Your task to perform on an android device: change the clock style Image 0: 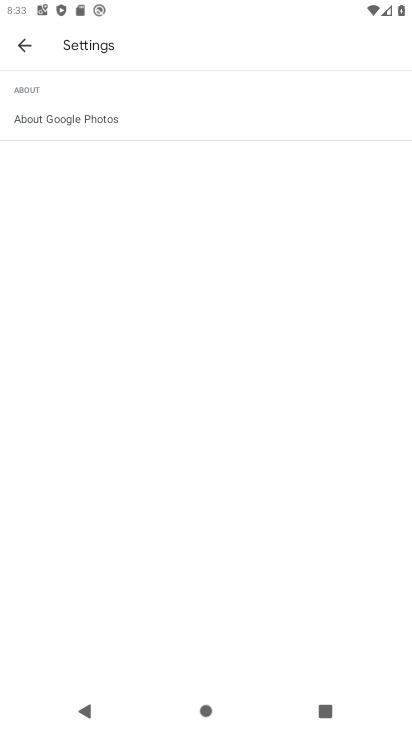
Step 0: press home button
Your task to perform on an android device: change the clock style Image 1: 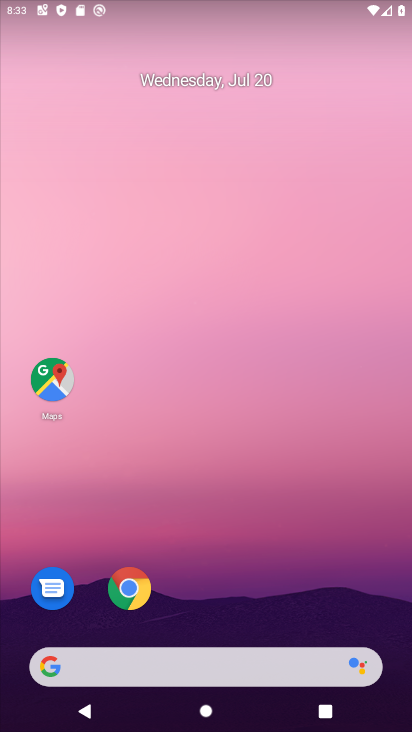
Step 1: drag from (269, 621) to (221, 70)
Your task to perform on an android device: change the clock style Image 2: 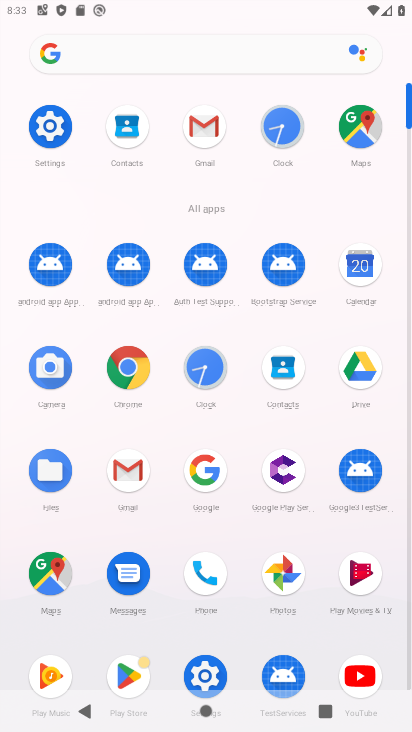
Step 2: click (193, 376)
Your task to perform on an android device: change the clock style Image 3: 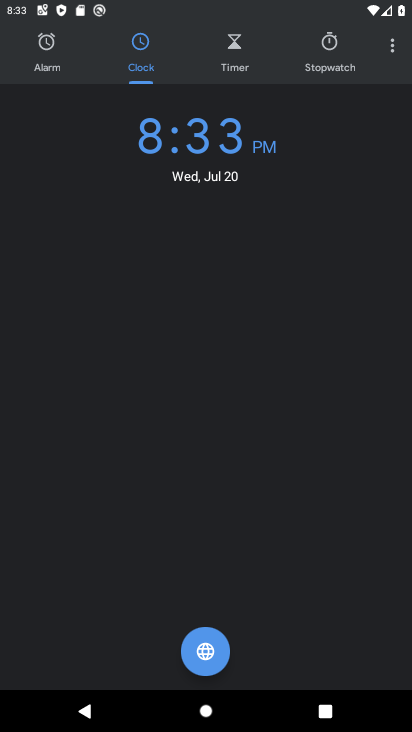
Step 3: click (393, 48)
Your task to perform on an android device: change the clock style Image 4: 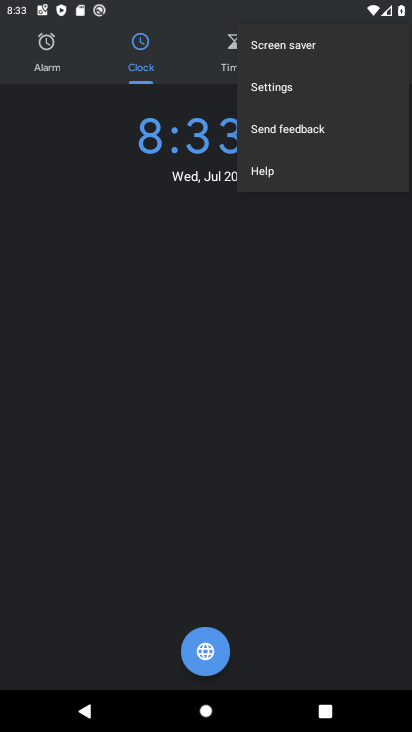
Step 4: click (278, 87)
Your task to perform on an android device: change the clock style Image 5: 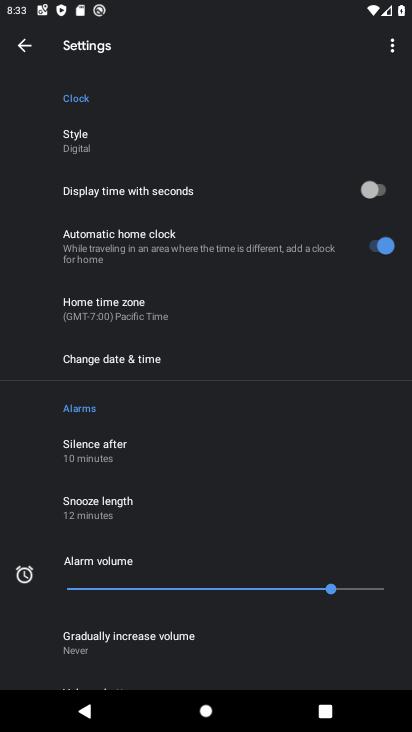
Step 5: click (73, 149)
Your task to perform on an android device: change the clock style Image 6: 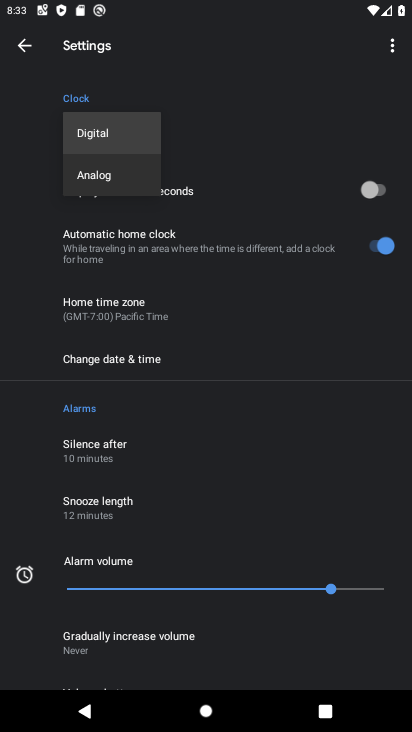
Step 6: click (89, 163)
Your task to perform on an android device: change the clock style Image 7: 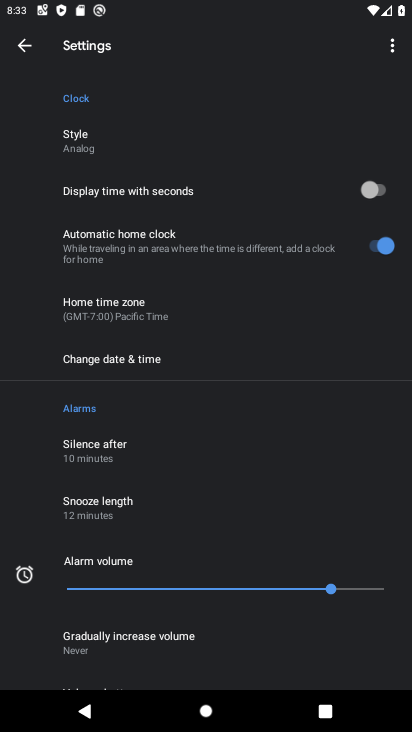
Step 7: task complete